Your task to perform on an android device: Go to Amazon Image 0: 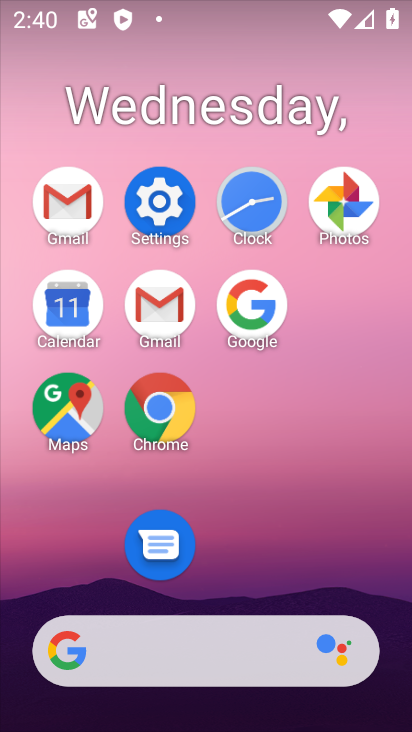
Step 0: click (155, 412)
Your task to perform on an android device: Go to Amazon Image 1: 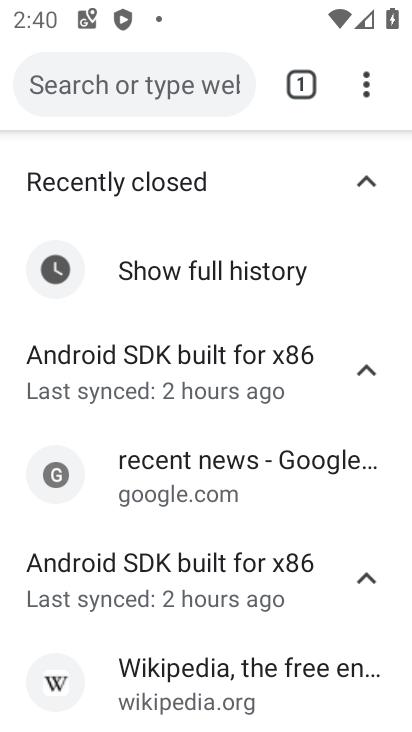
Step 1: click (319, 69)
Your task to perform on an android device: Go to Amazon Image 2: 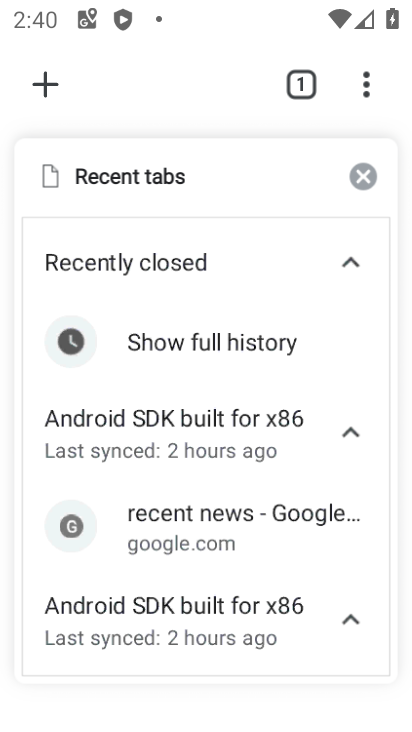
Step 2: click (32, 77)
Your task to perform on an android device: Go to Amazon Image 3: 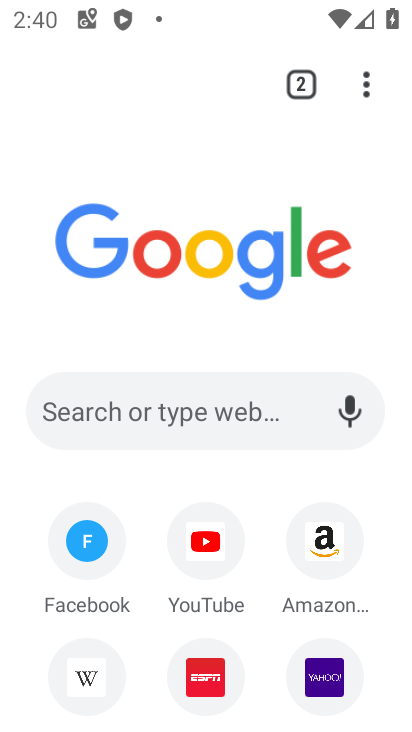
Step 3: click (316, 561)
Your task to perform on an android device: Go to Amazon Image 4: 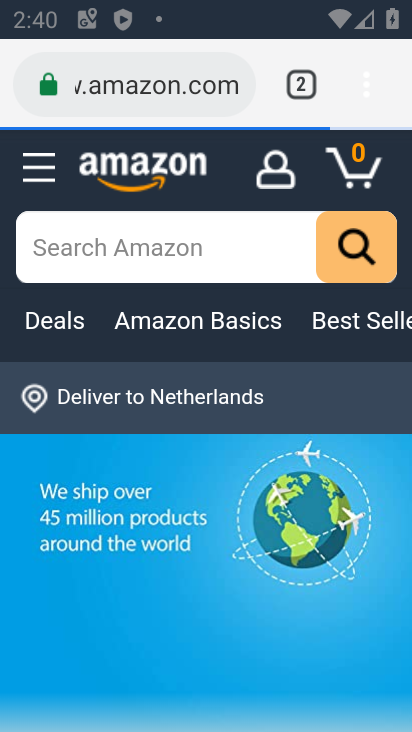
Step 4: task complete